Your task to perform on an android device: turn off picture-in-picture Image 0: 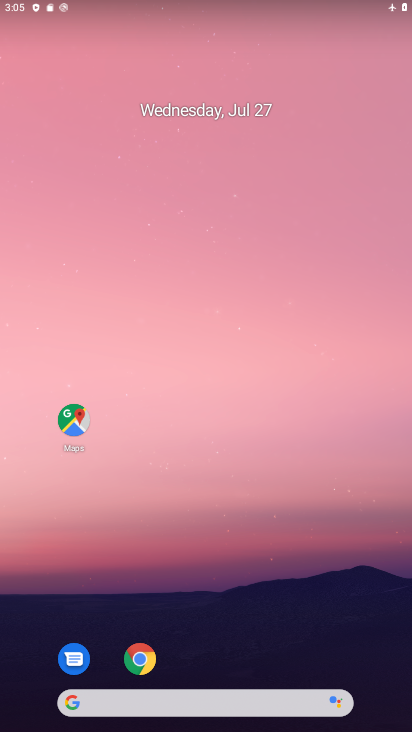
Step 0: click (139, 660)
Your task to perform on an android device: turn off picture-in-picture Image 1: 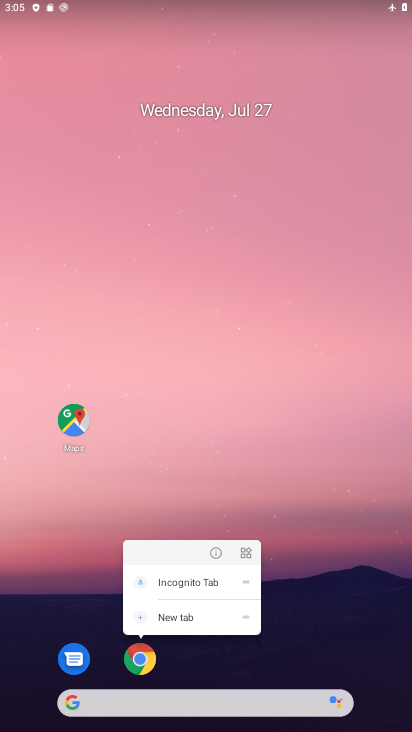
Step 1: click (209, 554)
Your task to perform on an android device: turn off picture-in-picture Image 2: 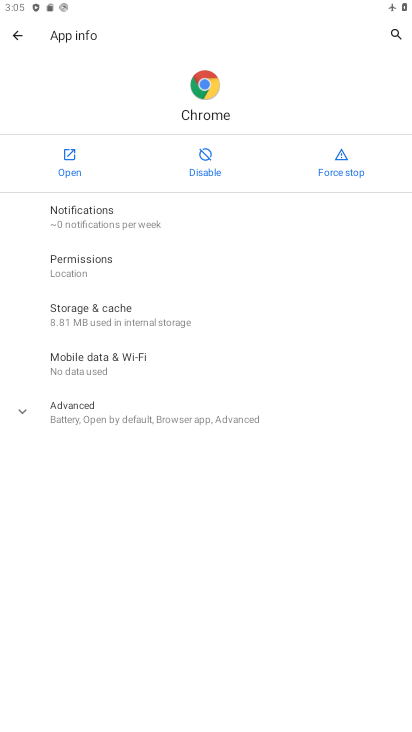
Step 2: click (22, 418)
Your task to perform on an android device: turn off picture-in-picture Image 3: 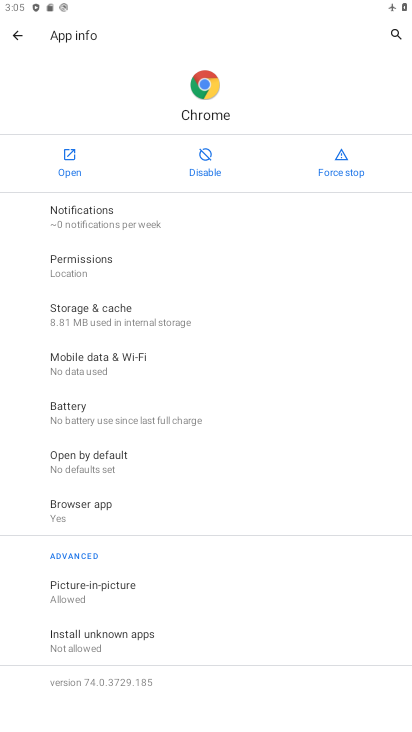
Step 3: click (85, 575)
Your task to perform on an android device: turn off picture-in-picture Image 4: 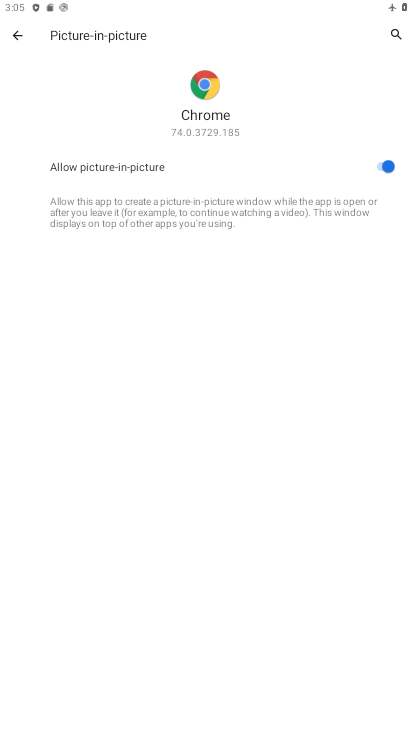
Step 4: click (397, 166)
Your task to perform on an android device: turn off picture-in-picture Image 5: 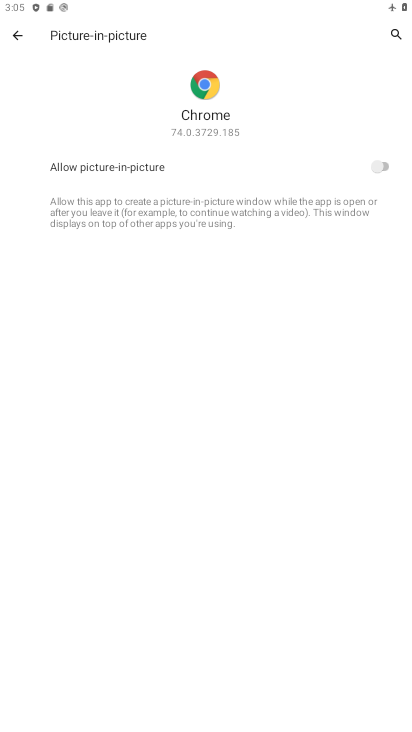
Step 5: task complete